Your task to perform on an android device: turn on showing notifications on the lock screen Image 0: 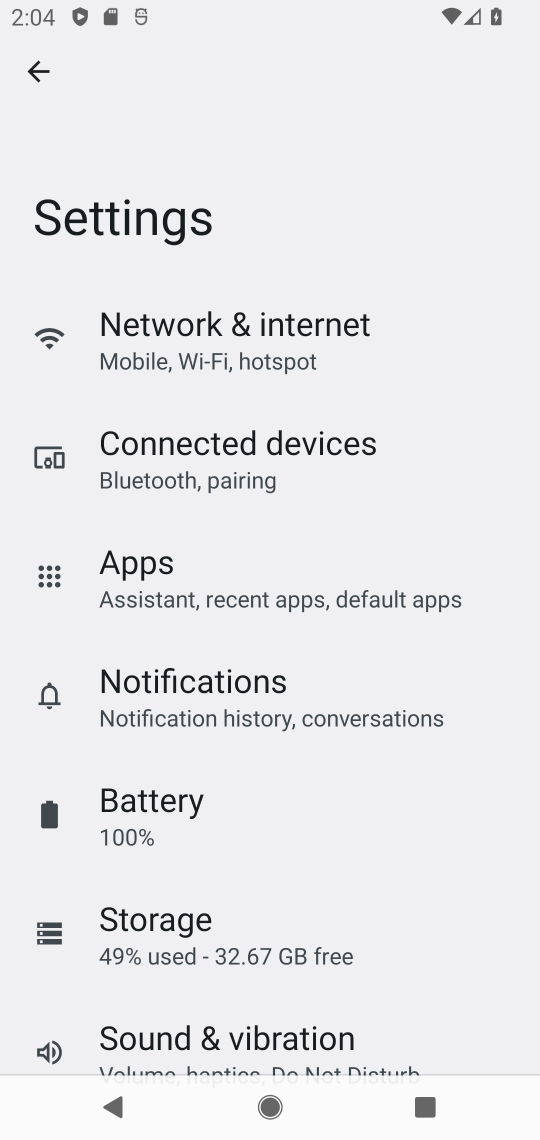
Step 0: press home button
Your task to perform on an android device: turn on showing notifications on the lock screen Image 1: 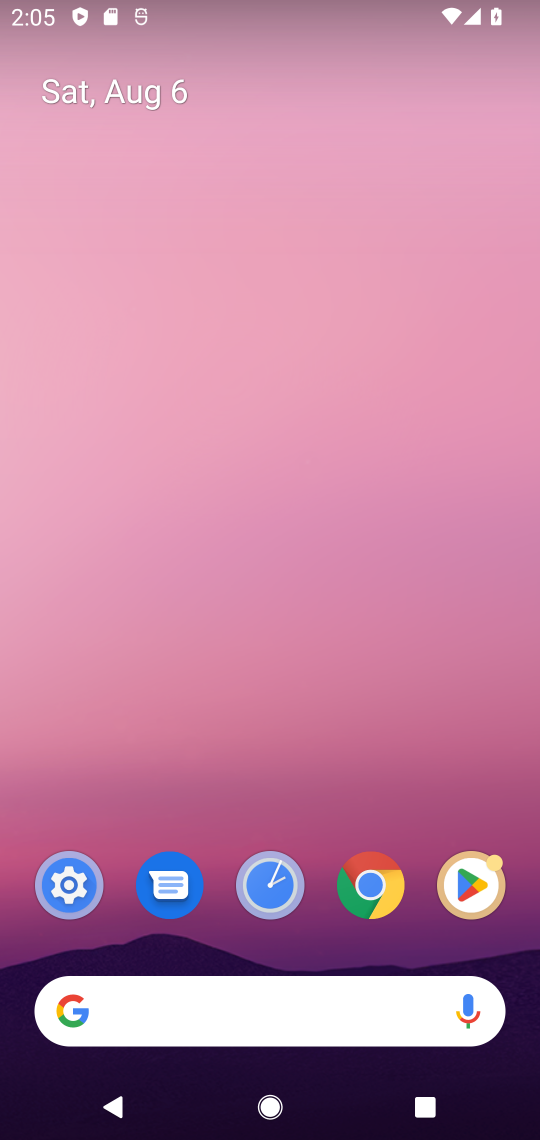
Step 1: drag from (432, 848) to (314, 13)
Your task to perform on an android device: turn on showing notifications on the lock screen Image 2: 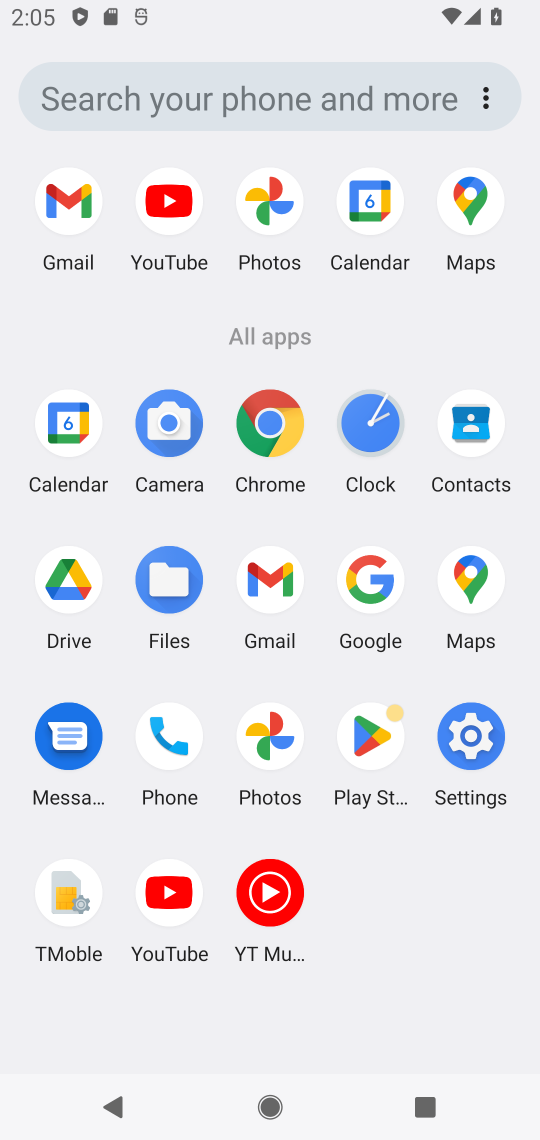
Step 2: click (461, 745)
Your task to perform on an android device: turn on showing notifications on the lock screen Image 3: 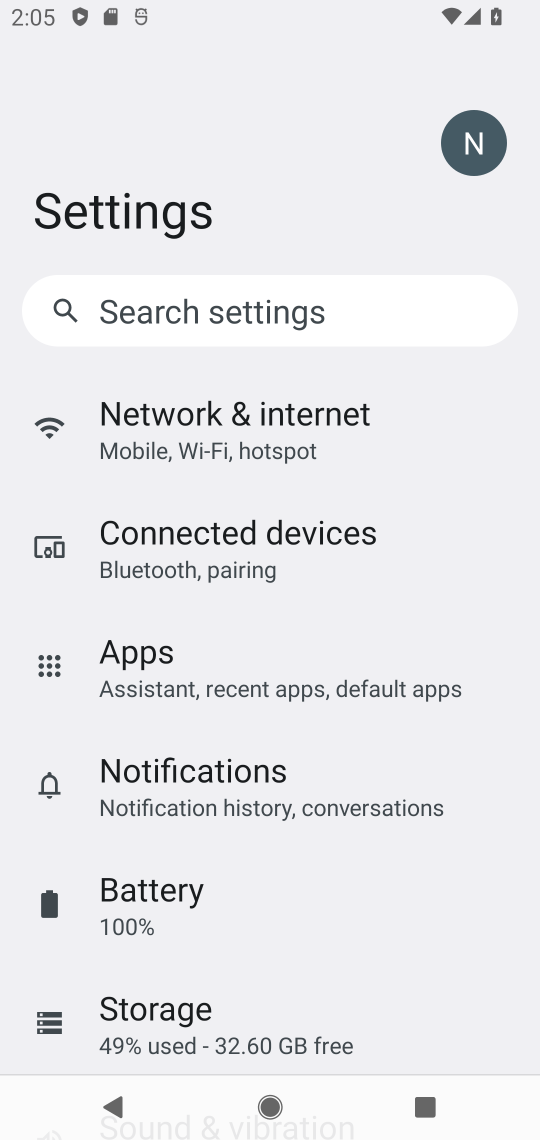
Step 3: drag from (301, 1023) to (298, 875)
Your task to perform on an android device: turn on showing notifications on the lock screen Image 4: 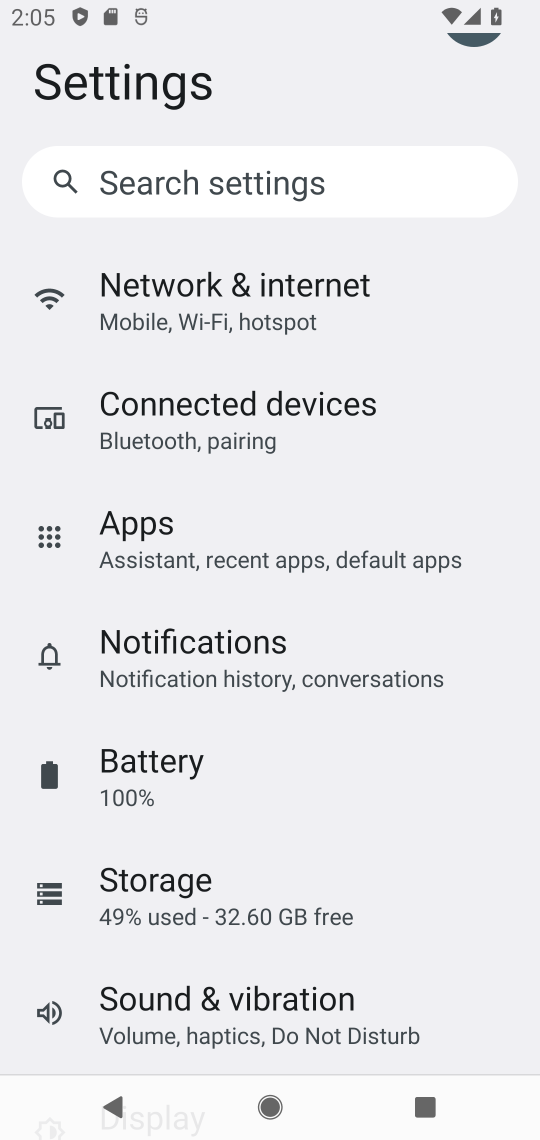
Step 4: click (257, 681)
Your task to perform on an android device: turn on showing notifications on the lock screen Image 5: 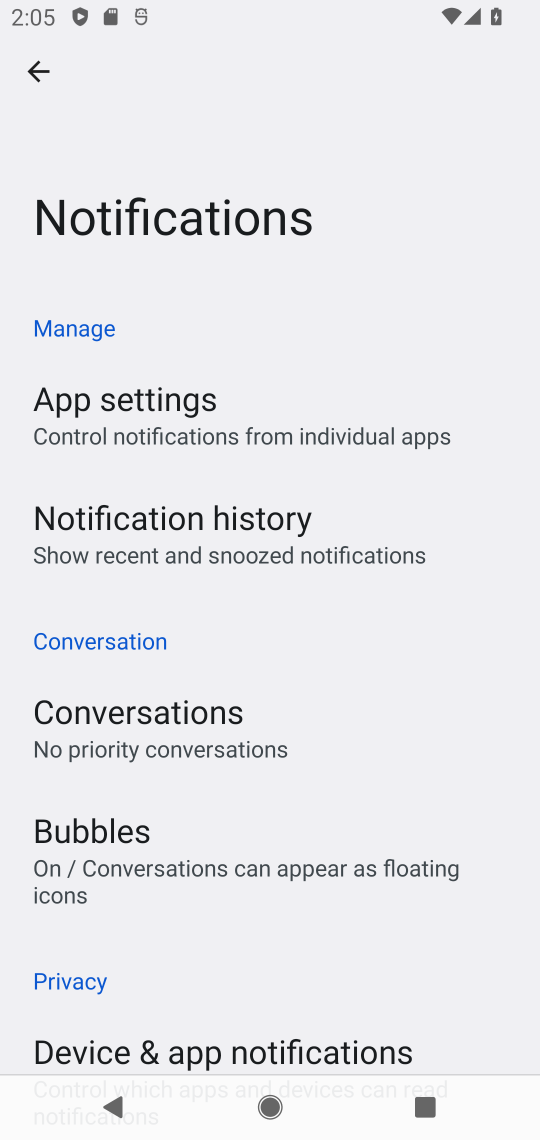
Step 5: drag from (264, 978) to (251, 278)
Your task to perform on an android device: turn on showing notifications on the lock screen Image 6: 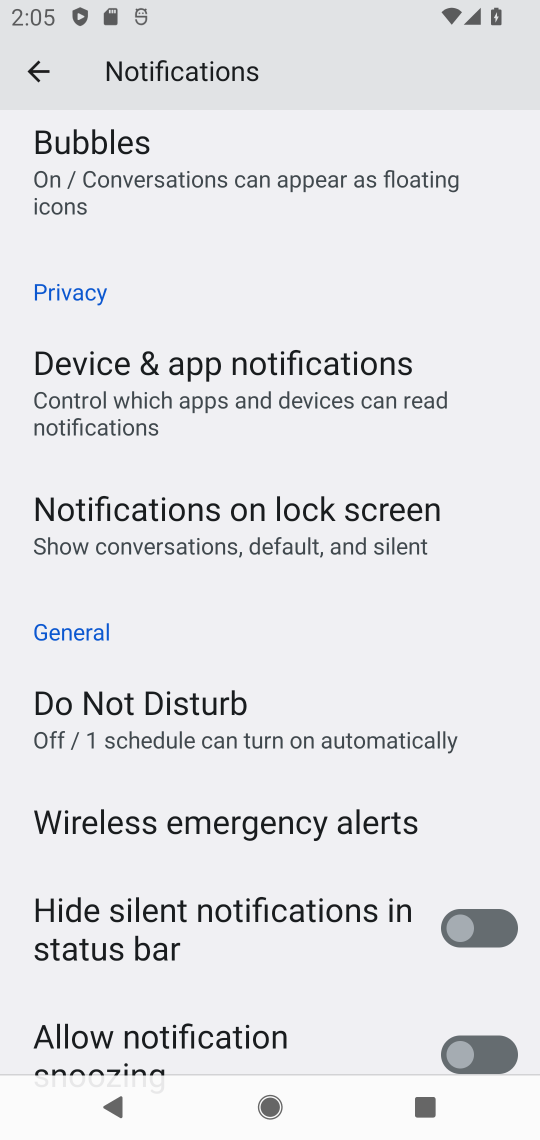
Step 6: click (249, 536)
Your task to perform on an android device: turn on showing notifications on the lock screen Image 7: 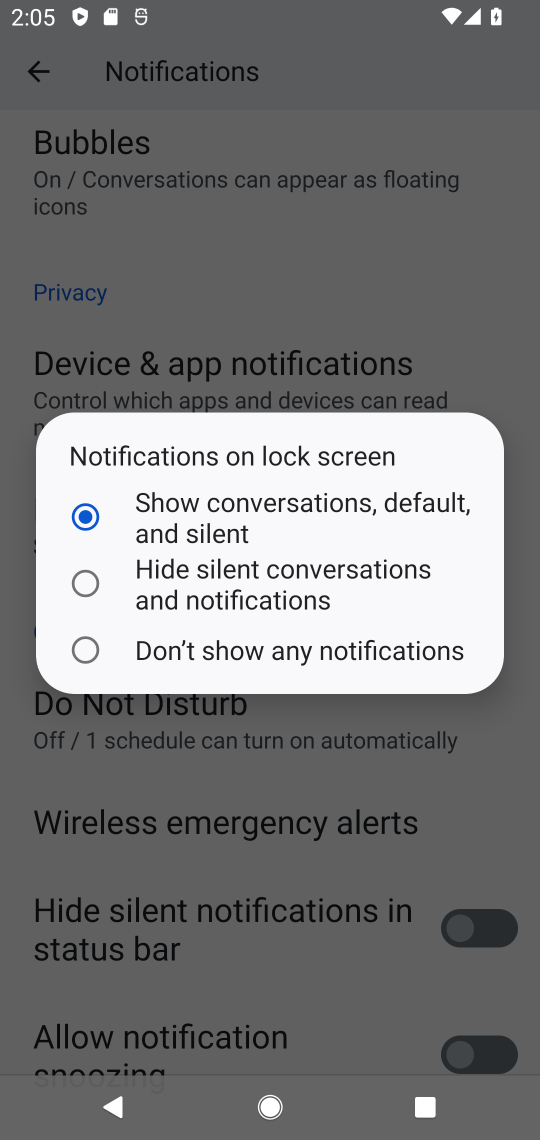
Step 7: click (164, 533)
Your task to perform on an android device: turn on showing notifications on the lock screen Image 8: 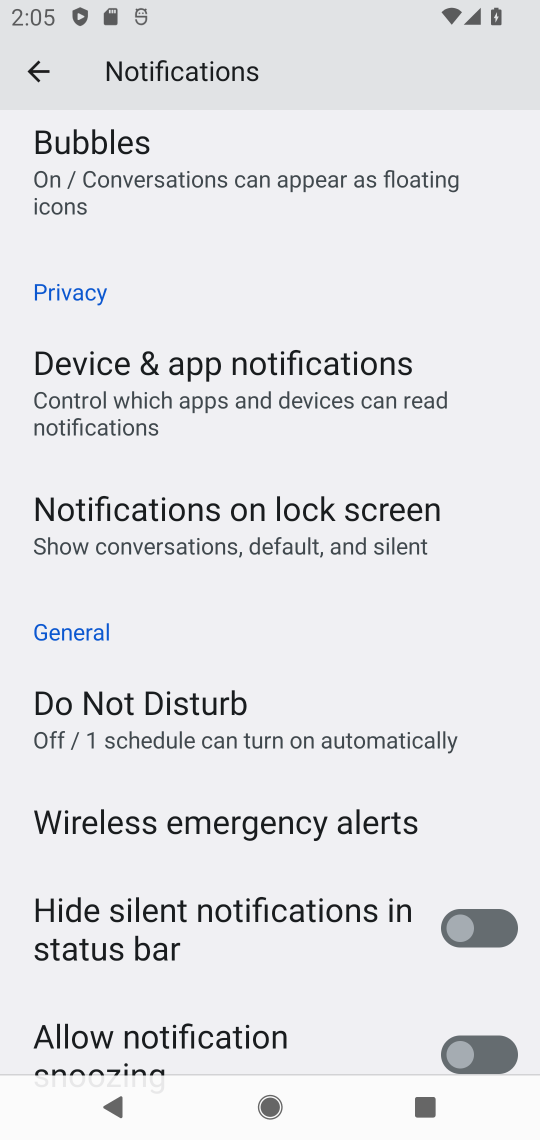
Step 8: task complete